Your task to perform on an android device: Go to Reddit.com Image 0: 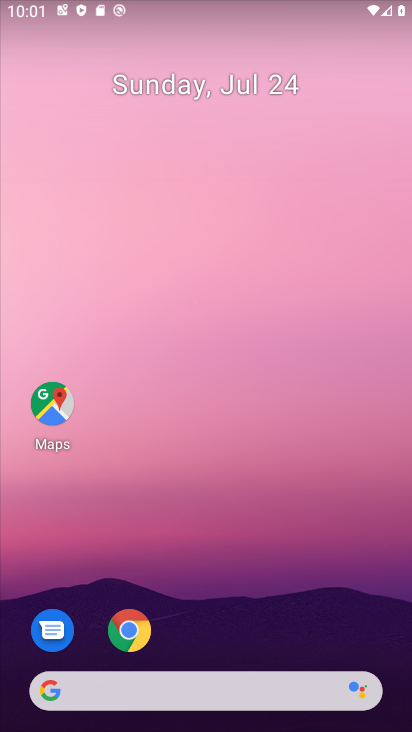
Step 0: click (134, 638)
Your task to perform on an android device: Go to Reddit.com Image 1: 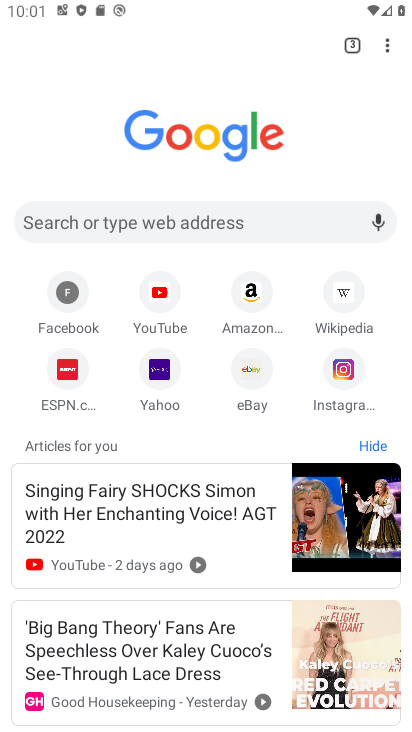
Step 1: click (155, 226)
Your task to perform on an android device: Go to Reddit.com Image 2: 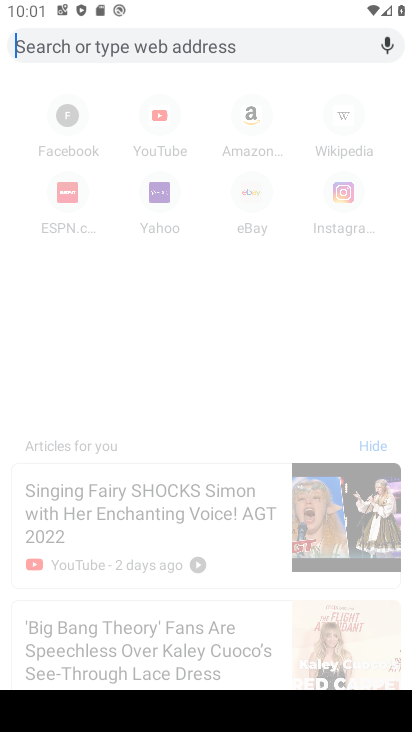
Step 2: type "Reddit.com"
Your task to perform on an android device: Go to Reddit.com Image 3: 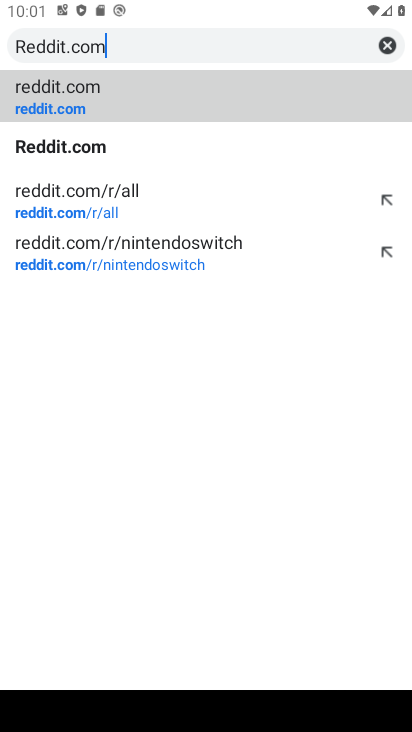
Step 3: type ""
Your task to perform on an android device: Go to Reddit.com Image 4: 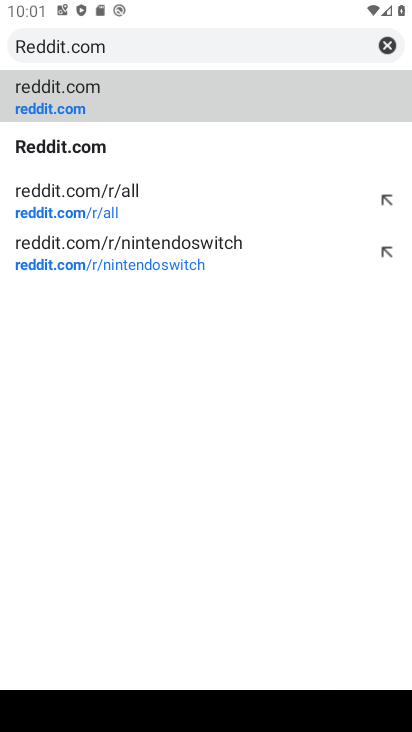
Step 4: click (161, 93)
Your task to perform on an android device: Go to Reddit.com Image 5: 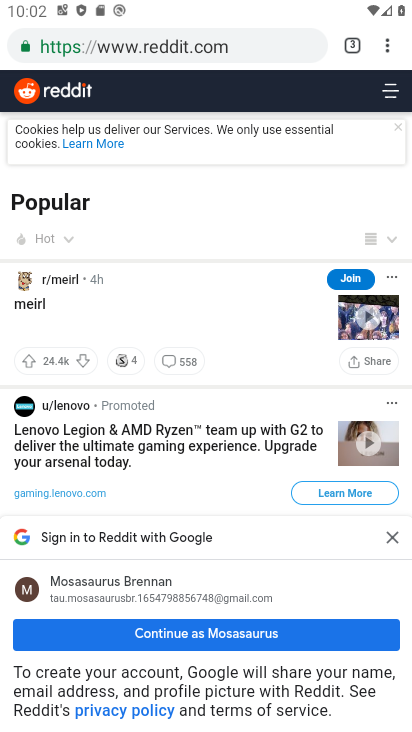
Step 5: task complete